Your task to perform on an android device: check android version Image 0: 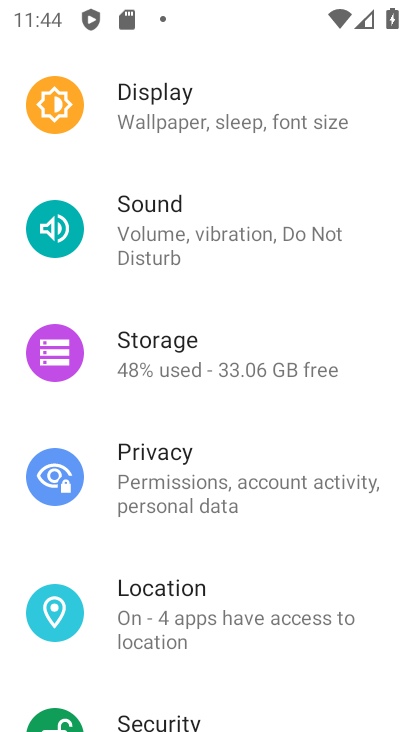
Step 0: drag from (212, 599) to (173, 216)
Your task to perform on an android device: check android version Image 1: 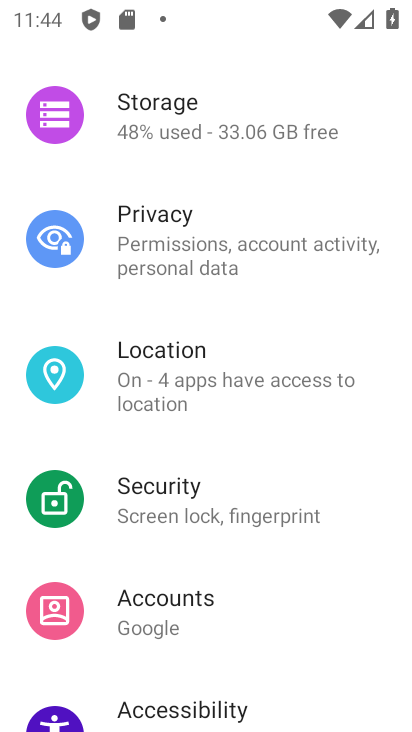
Step 1: drag from (229, 567) to (187, 216)
Your task to perform on an android device: check android version Image 2: 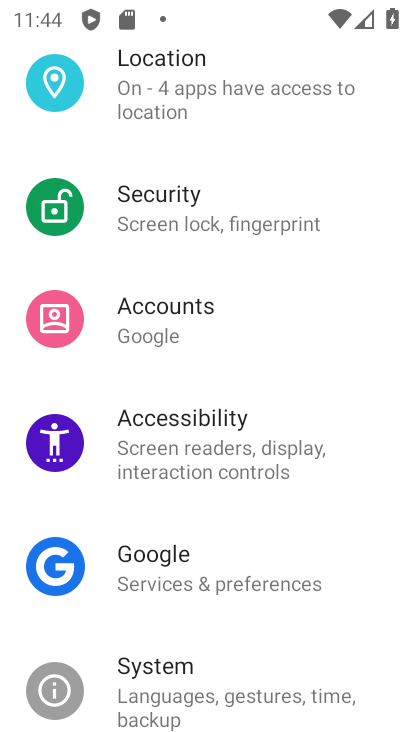
Step 2: drag from (229, 645) to (179, 331)
Your task to perform on an android device: check android version Image 3: 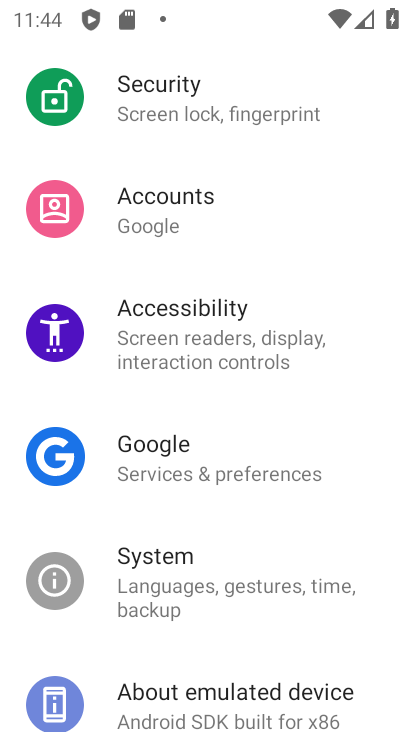
Step 3: drag from (222, 249) to (221, 175)
Your task to perform on an android device: check android version Image 4: 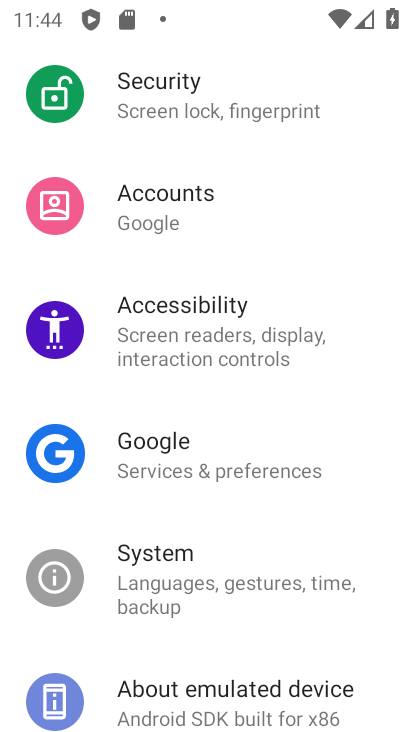
Step 4: click (204, 689)
Your task to perform on an android device: check android version Image 5: 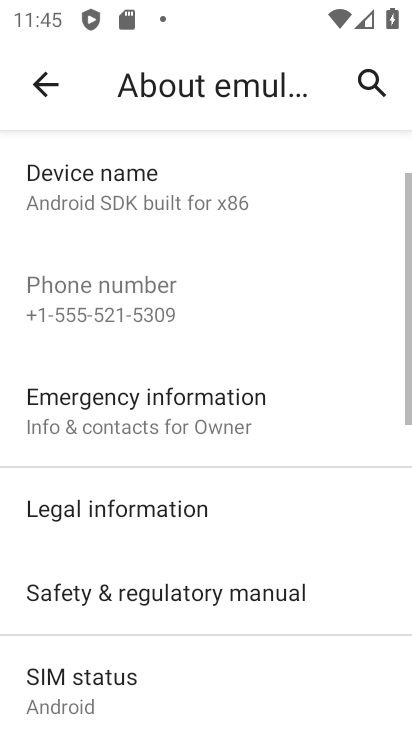
Step 5: drag from (223, 539) to (199, 185)
Your task to perform on an android device: check android version Image 6: 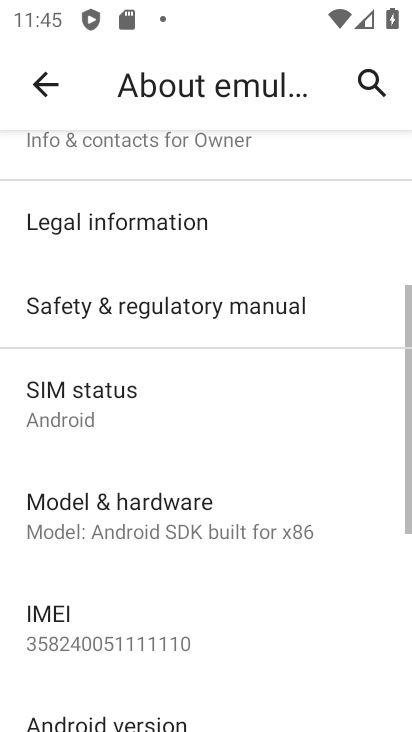
Step 6: drag from (153, 583) to (143, 346)
Your task to perform on an android device: check android version Image 7: 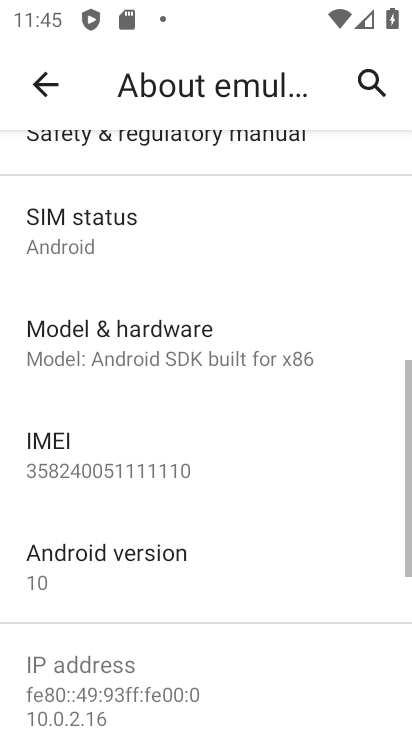
Step 7: click (113, 554)
Your task to perform on an android device: check android version Image 8: 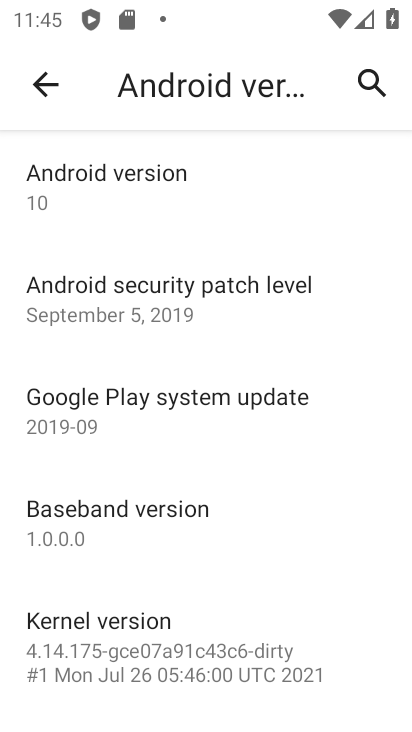
Step 8: task complete